Your task to perform on an android device: Add logitech g502 to the cart on costco.com Image 0: 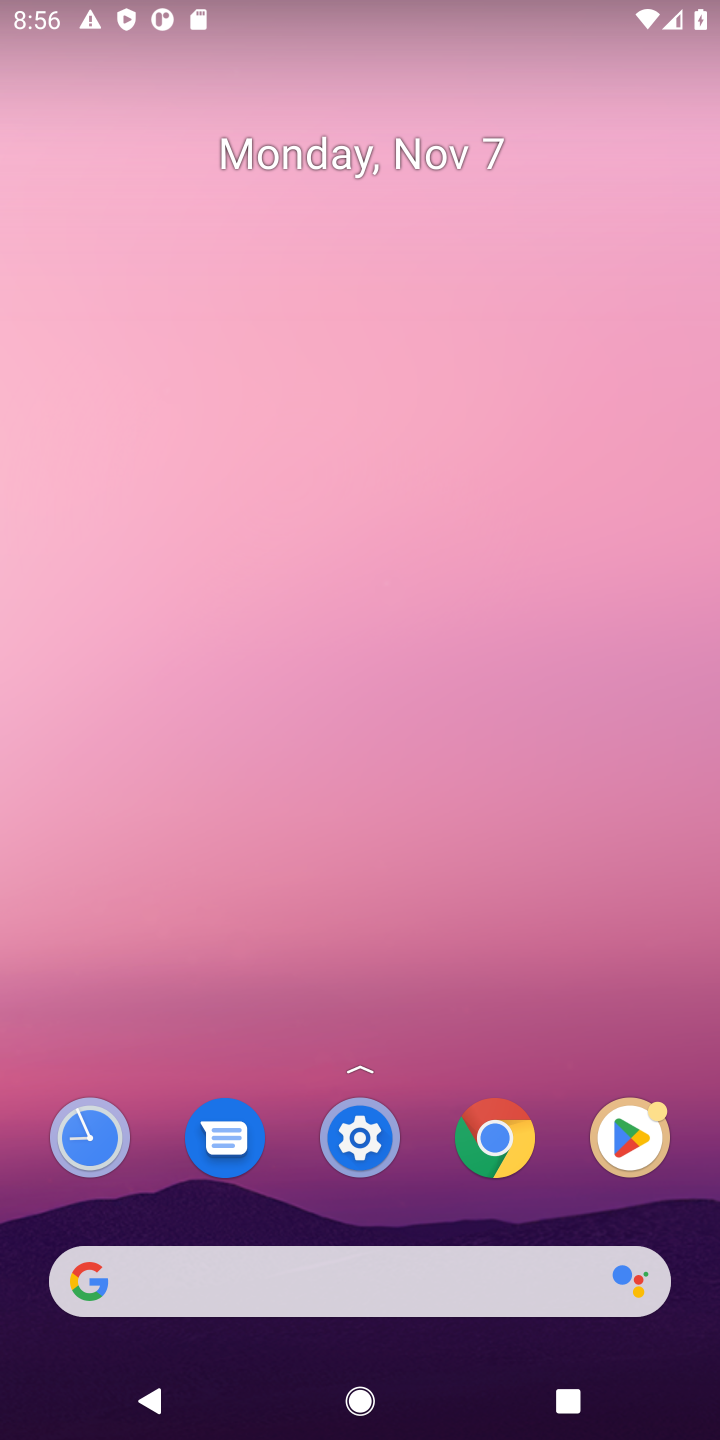
Step 0: drag from (417, 1216) to (487, 110)
Your task to perform on an android device: Add logitech g502 to the cart on costco.com Image 1: 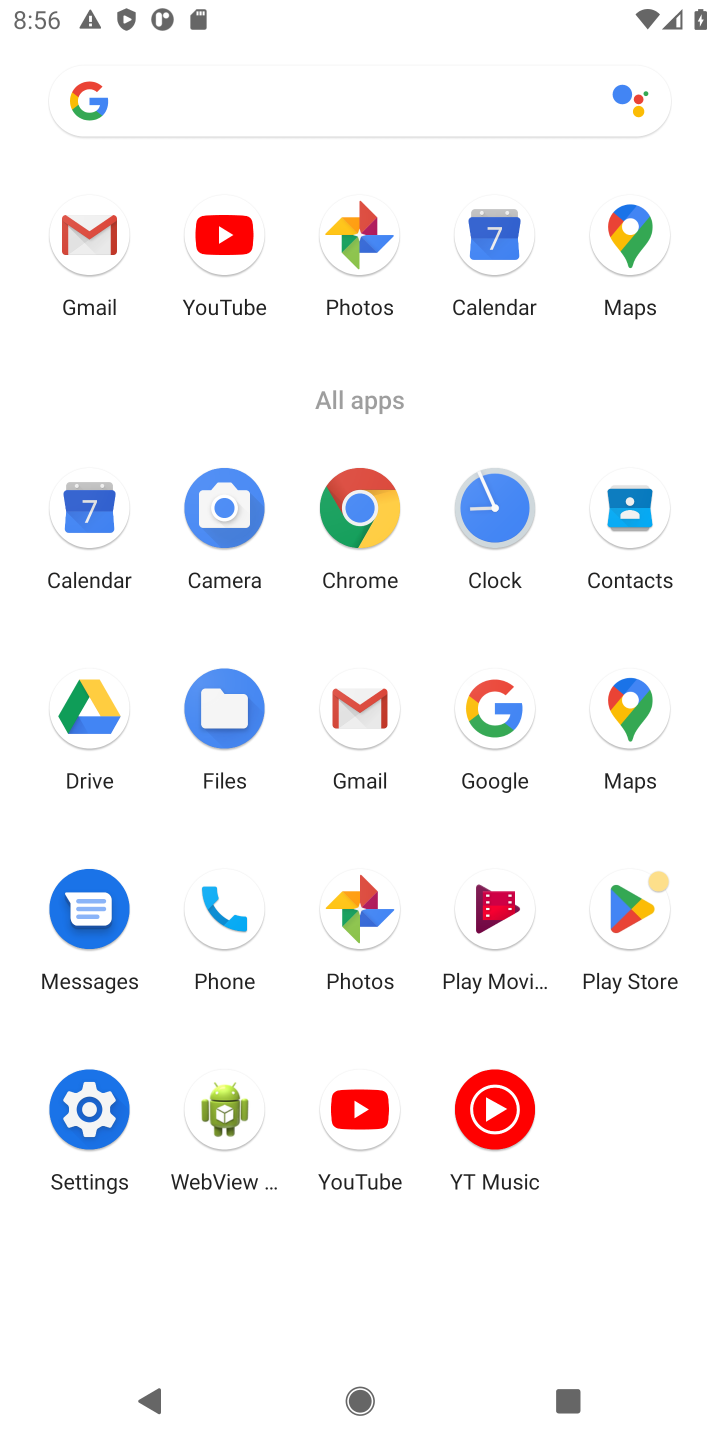
Step 1: click (363, 499)
Your task to perform on an android device: Add logitech g502 to the cart on costco.com Image 2: 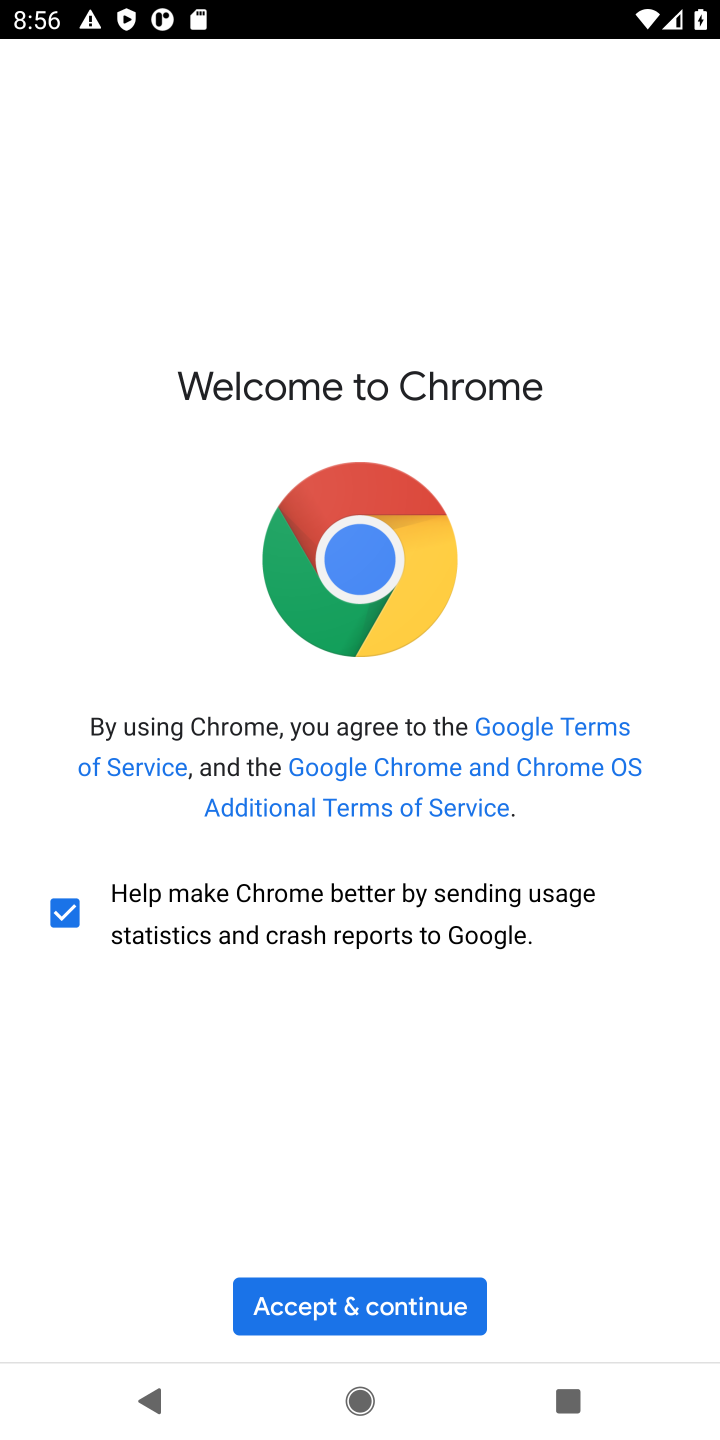
Step 2: click (391, 1308)
Your task to perform on an android device: Add logitech g502 to the cart on costco.com Image 3: 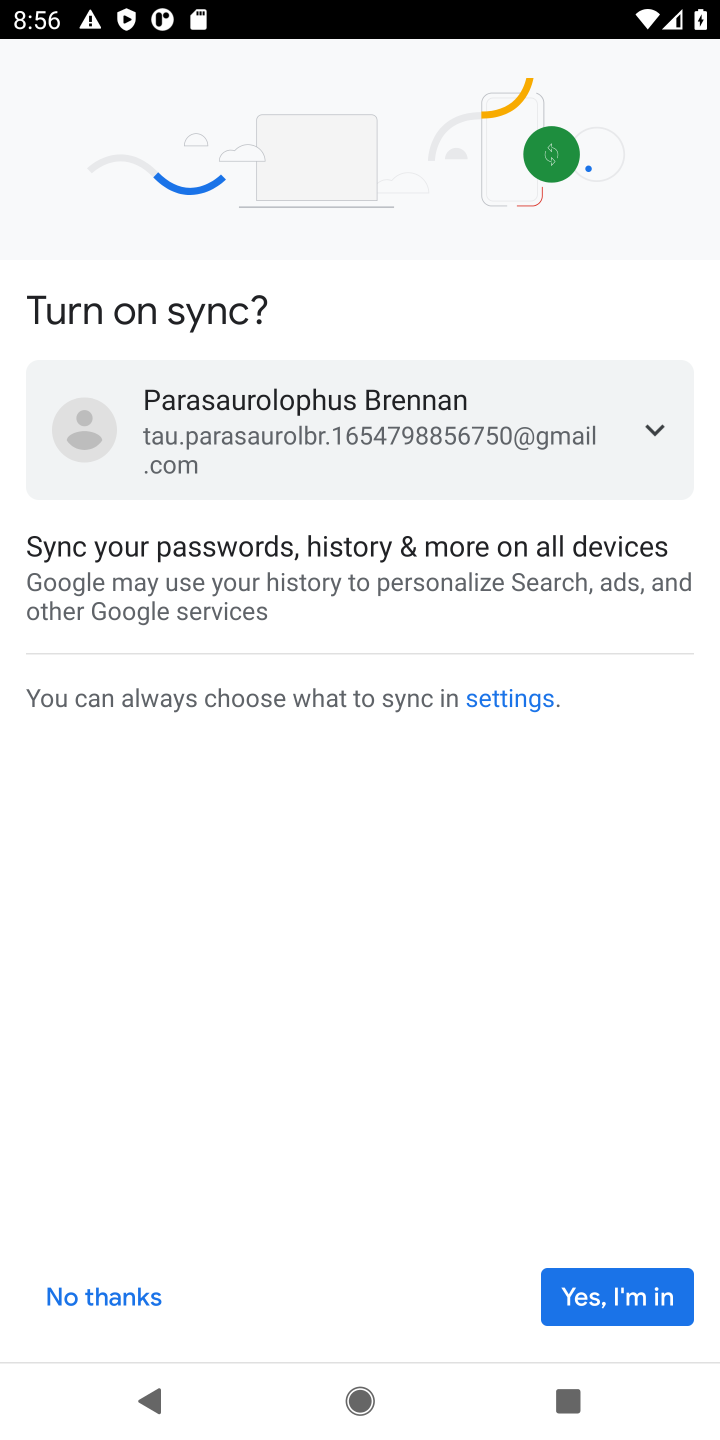
Step 3: click (588, 1279)
Your task to perform on an android device: Add logitech g502 to the cart on costco.com Image 4: 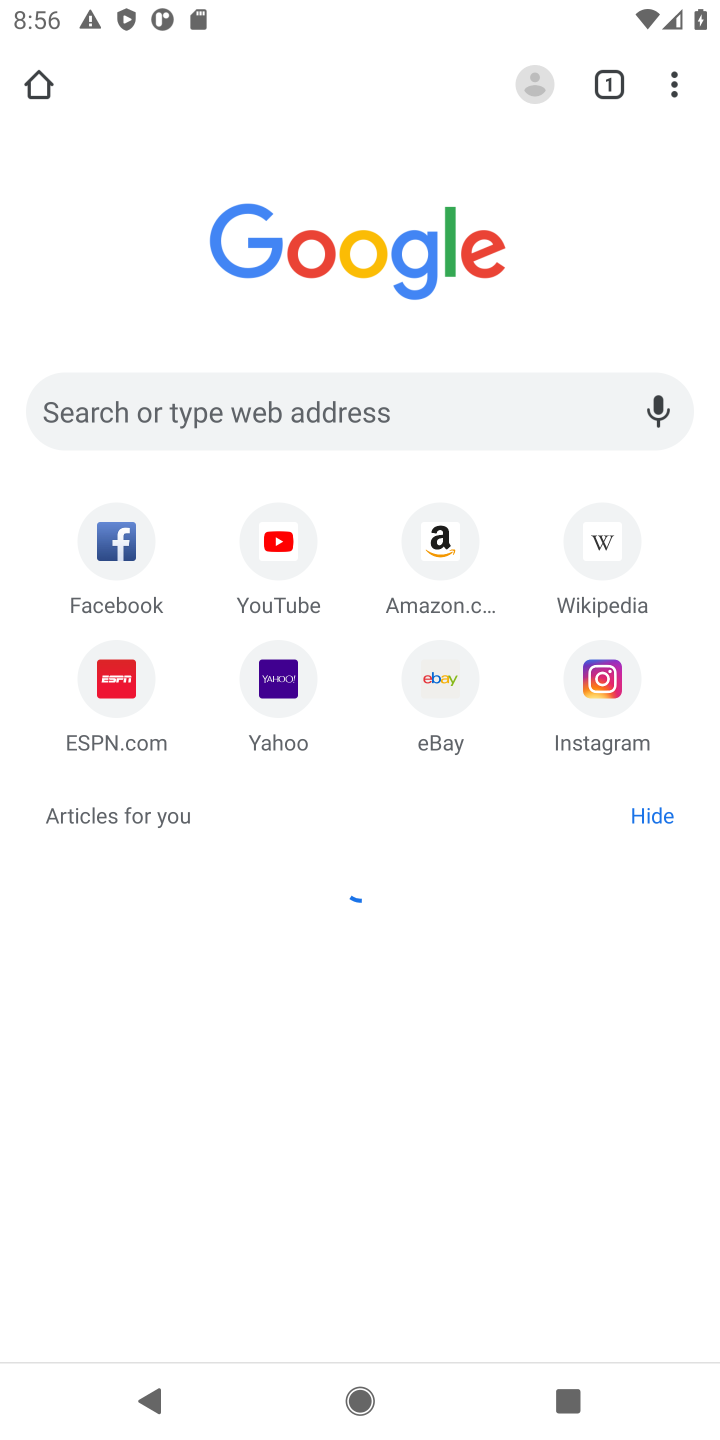
Step 4: click (351, 405)
Your task to perform on an android device: Add logitech g502 to the cart on costco.com Image 5: 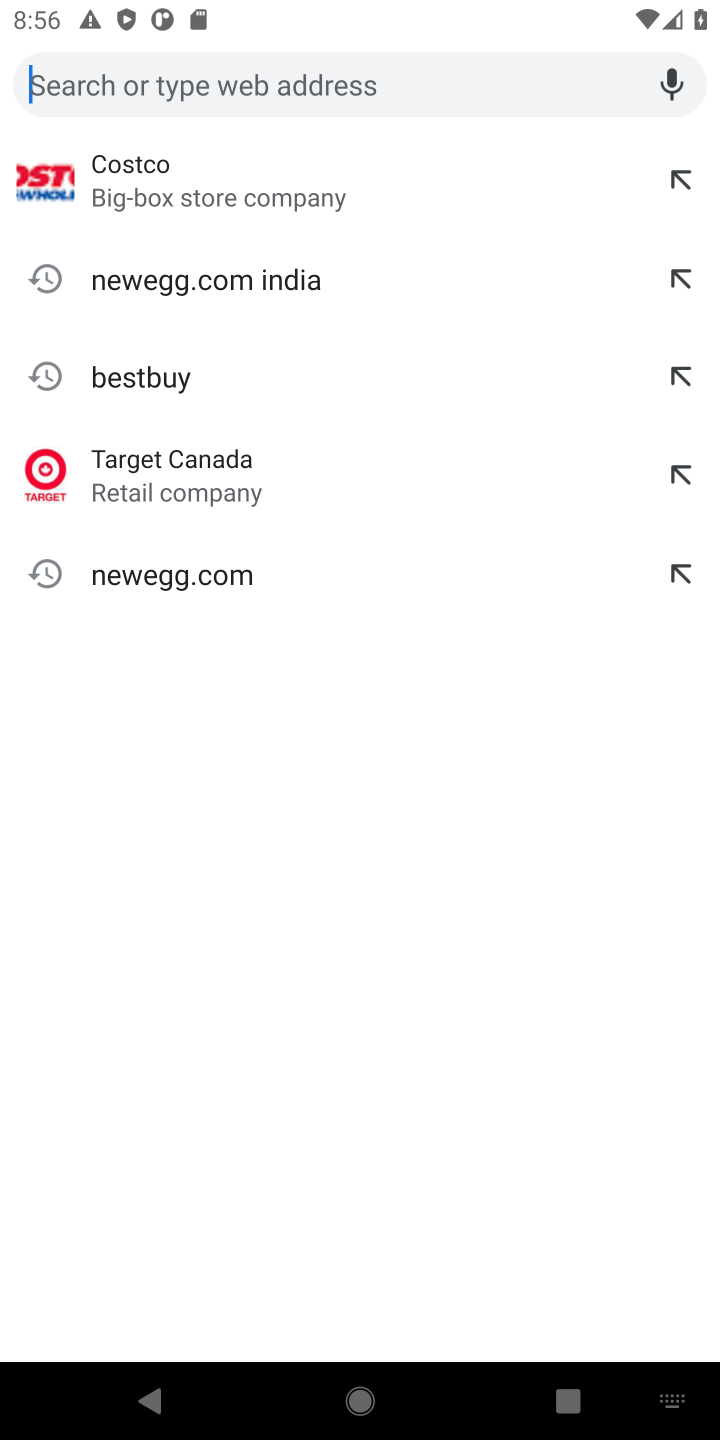
Step 5: type "costco.com"
Your task to perform on an android device: Add logitech g502 to the cart on costco.com Image 6: 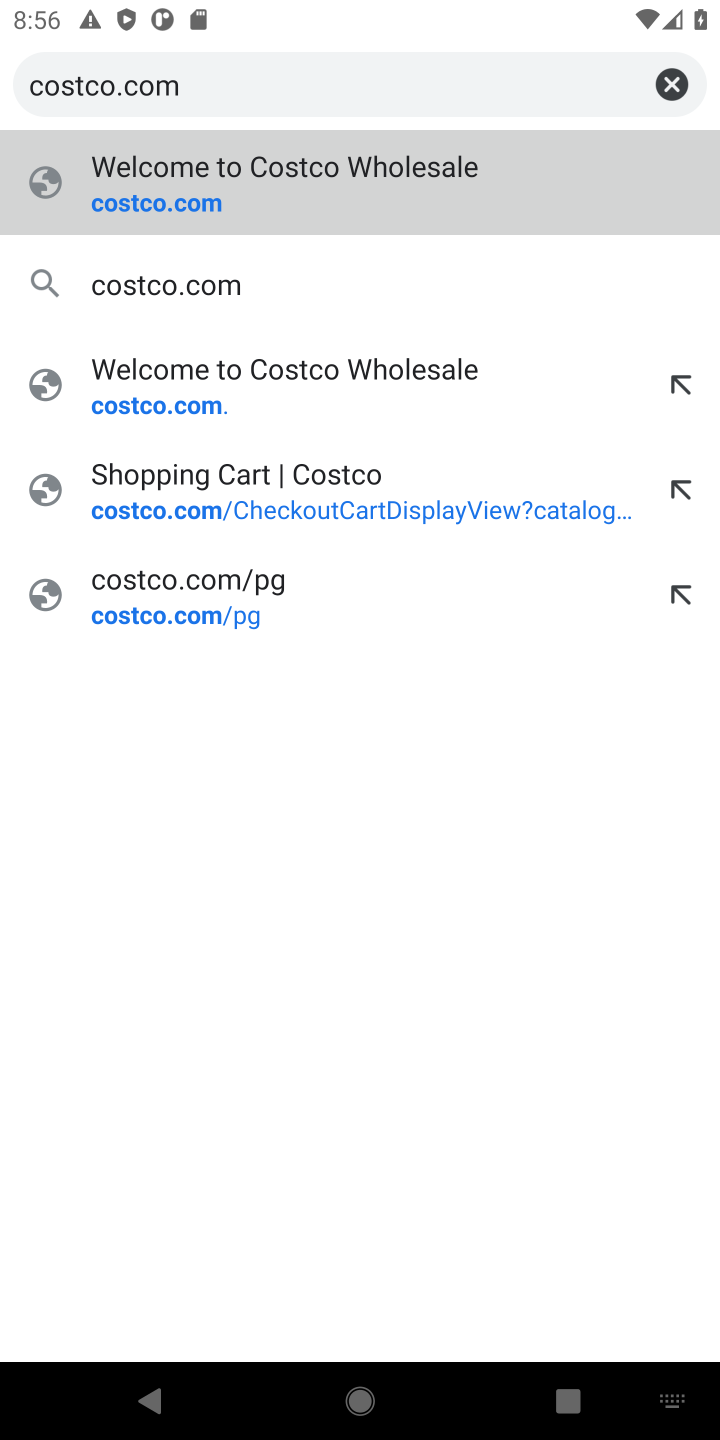
Step 6: press enter
Your task to perform on an android device: Add logitech g502 to the cart on costco.com Image 7: 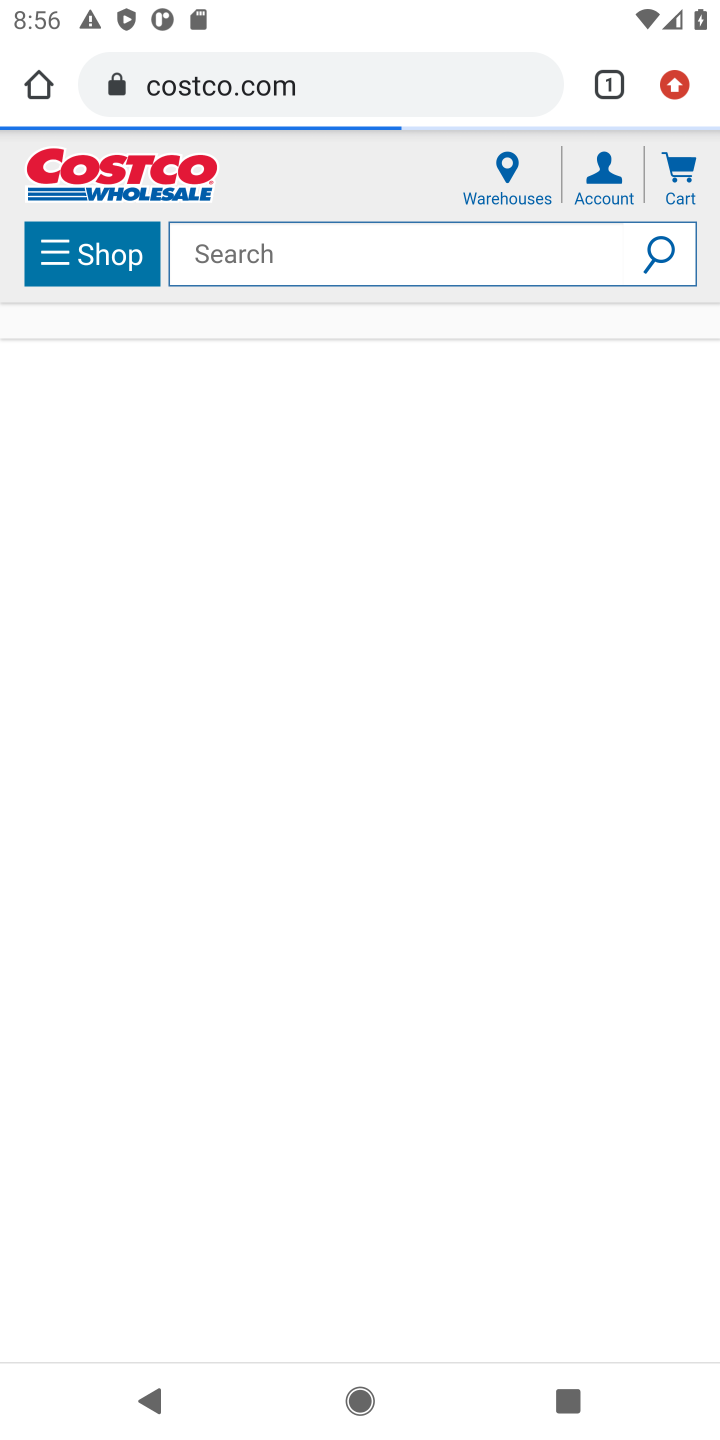
Step 7: click (491, 272)
Your task to perform on an android device: Add logitech g502 to the cart on costco.com Image 8: 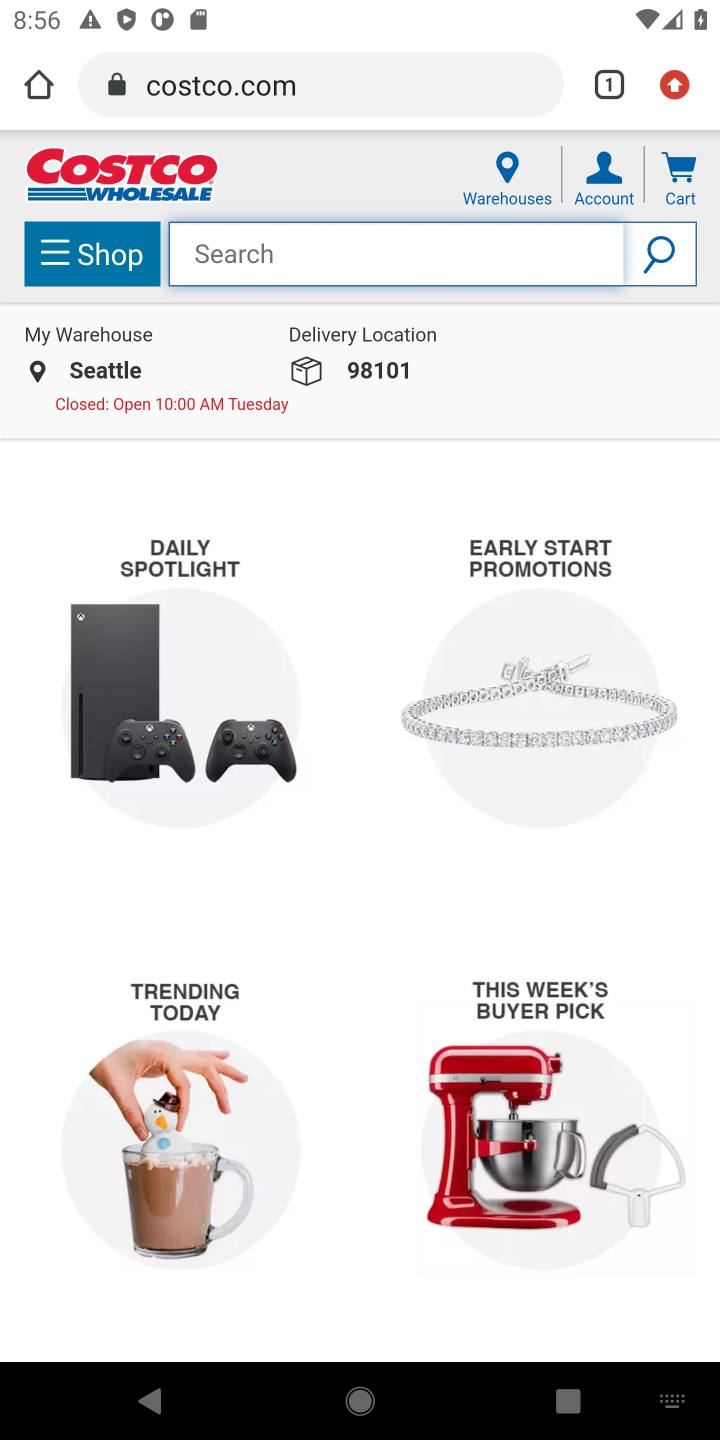
Step 8: type "logitech g502"
Your task to perform on an android device: Add logitech g502 to the cart on costco.com Image 9: 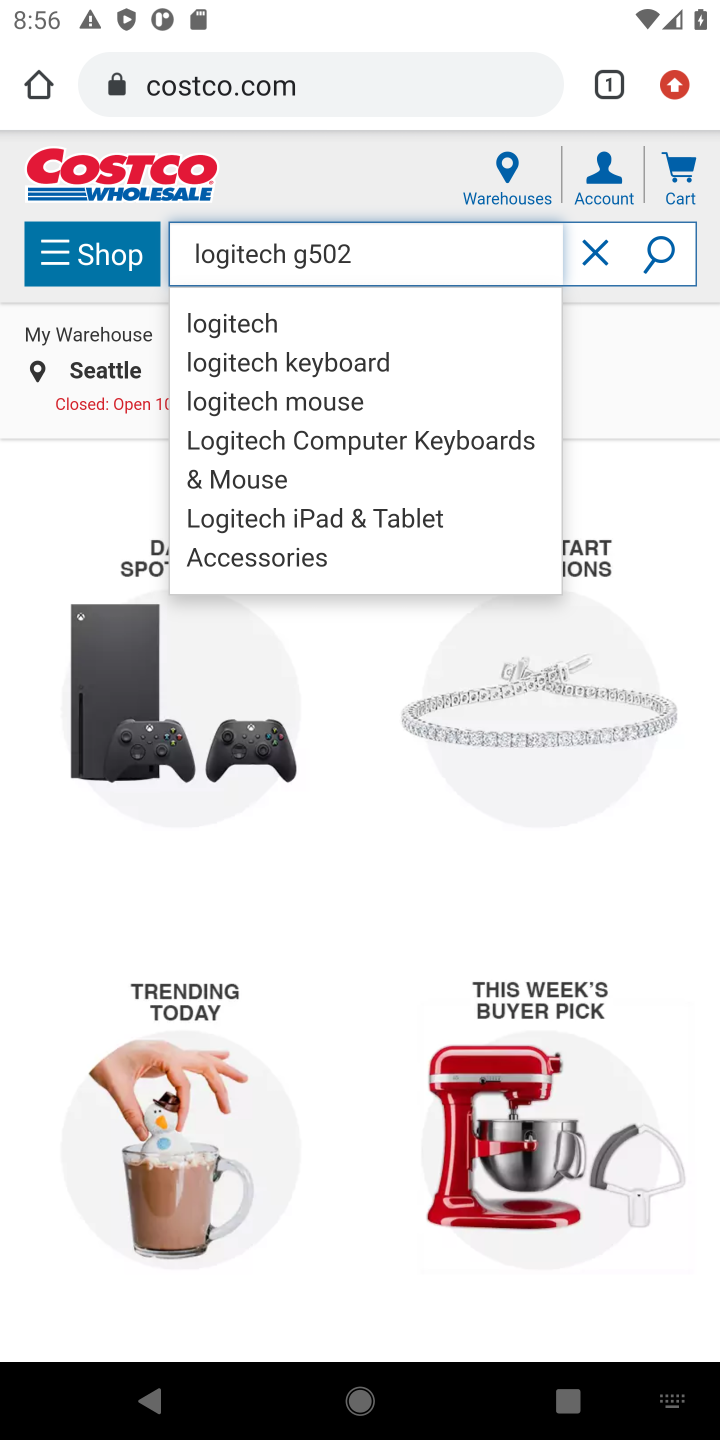
Step 9: press enter
Your task to perform on an android device: Add logitech g502 to the cart on costco.com Image 10: 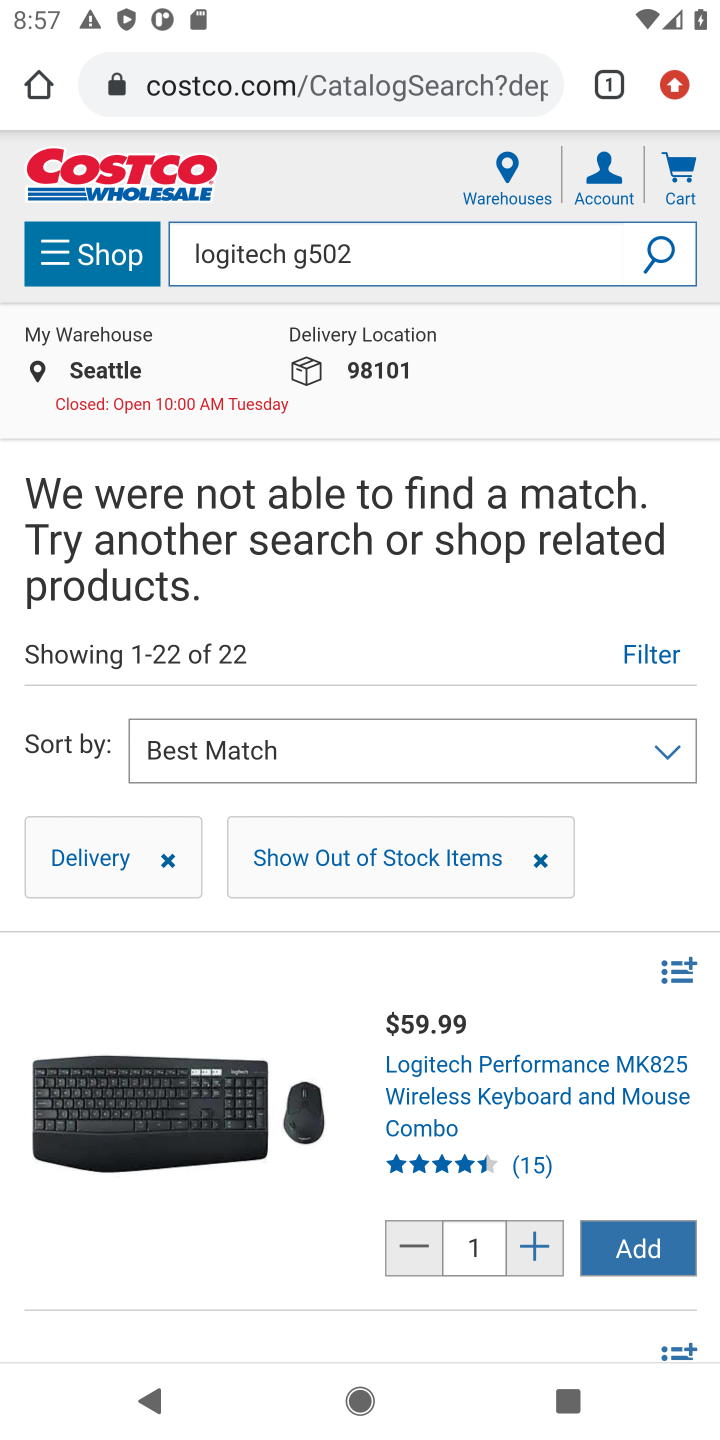
Step 10: task complete